Your task to perform on an android device: Open accessibility settings Image 0: 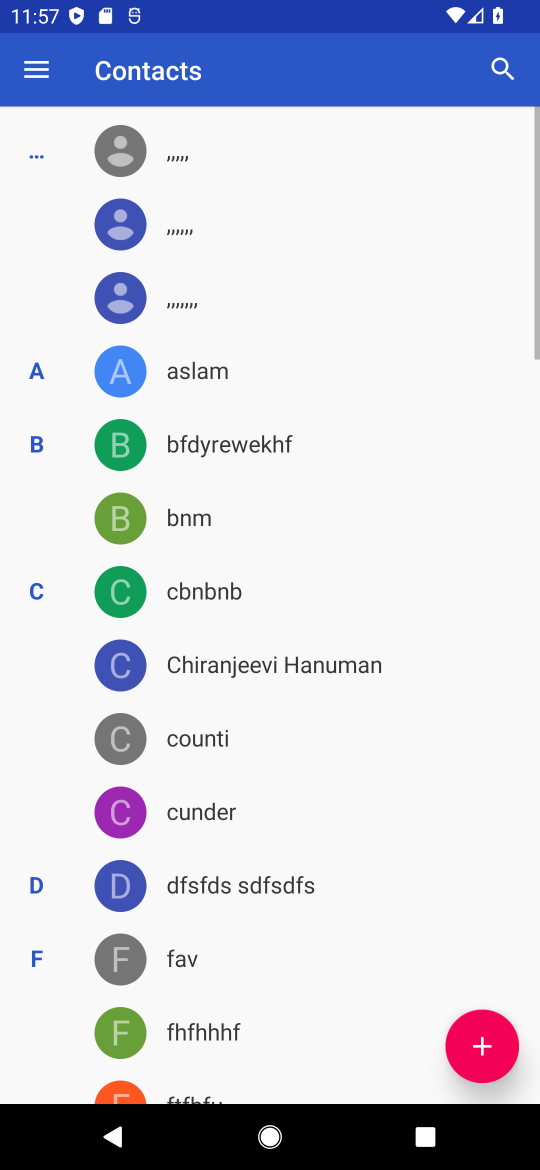
Step 0: press home button
Your task to perform on an android device: Open accessibility settings Image 1: 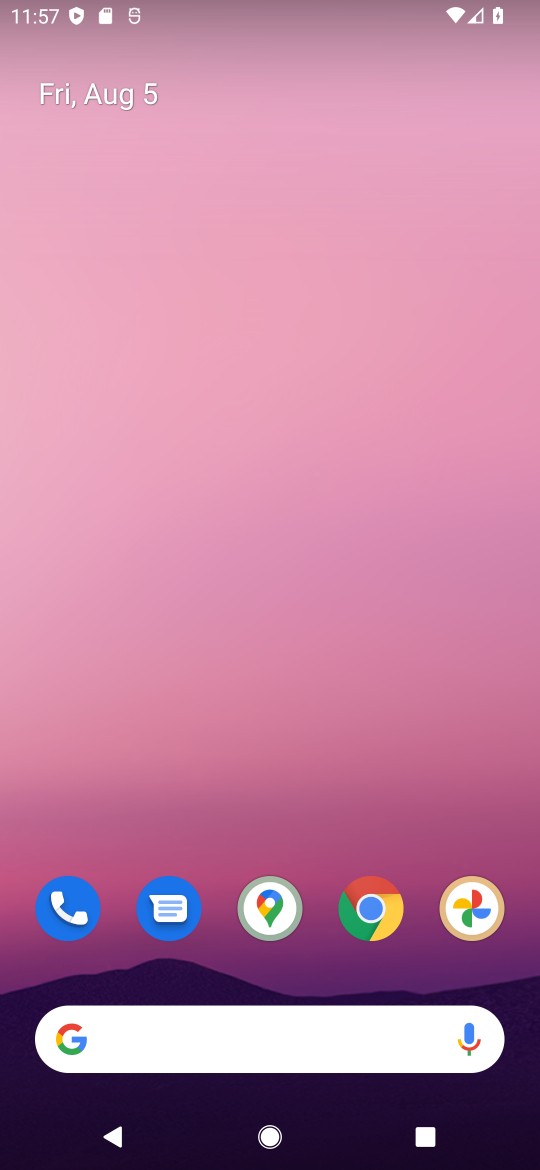
Step 1: drag from (427, 944) to (396, 279)
Your task to perform on an android device: Open accessibility settings Image 2: 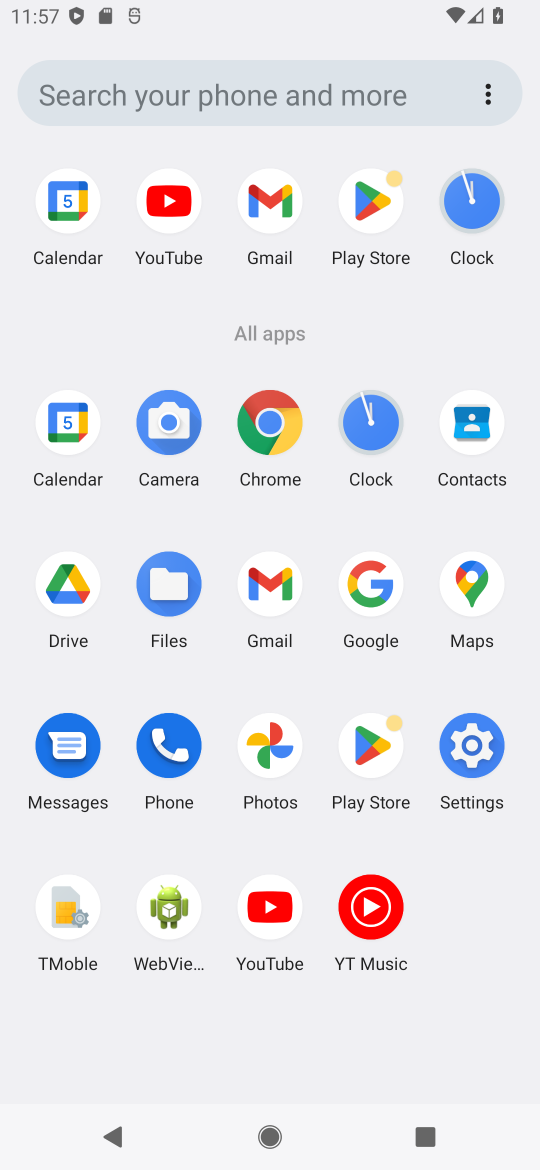
Step 2: click (477, 739)
Your task to perform on an android device: Open accessibility settings Image 3: 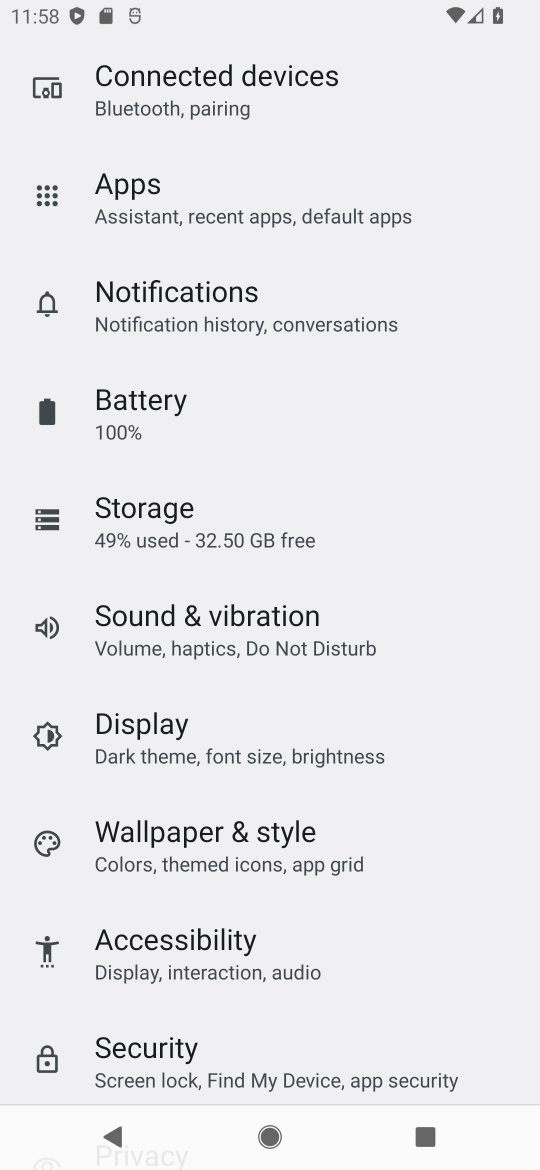
Step 3: drag from (345, 158) to (249, 833)
Your task to perform on an android device: Open accessibility settings Image 4: 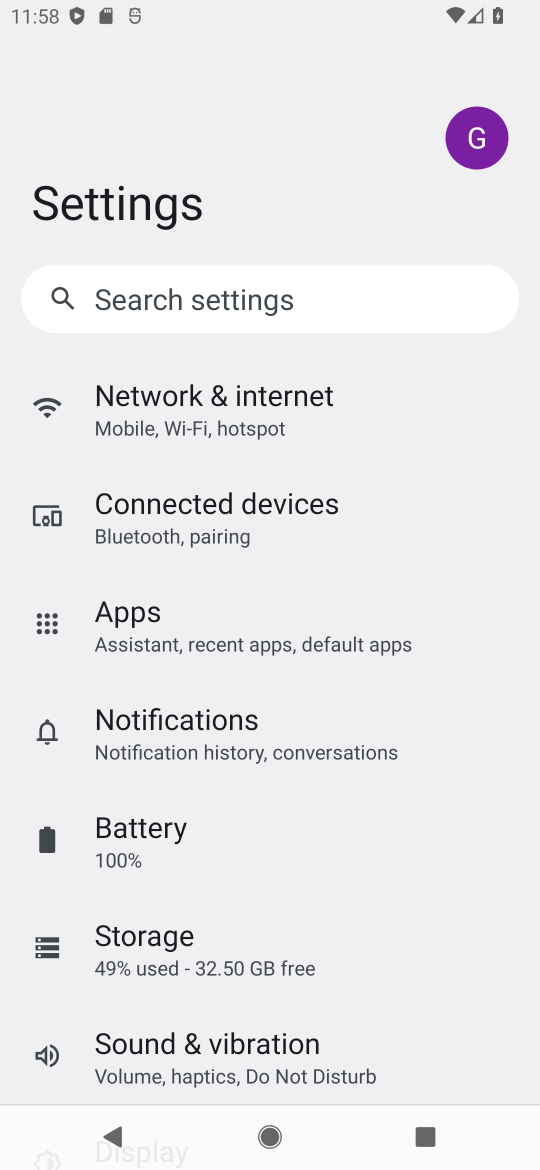
Step 4: drag from (303, 824) to (338, 136)
Your task to perform on an android device: Open accessibility settings Image 5: 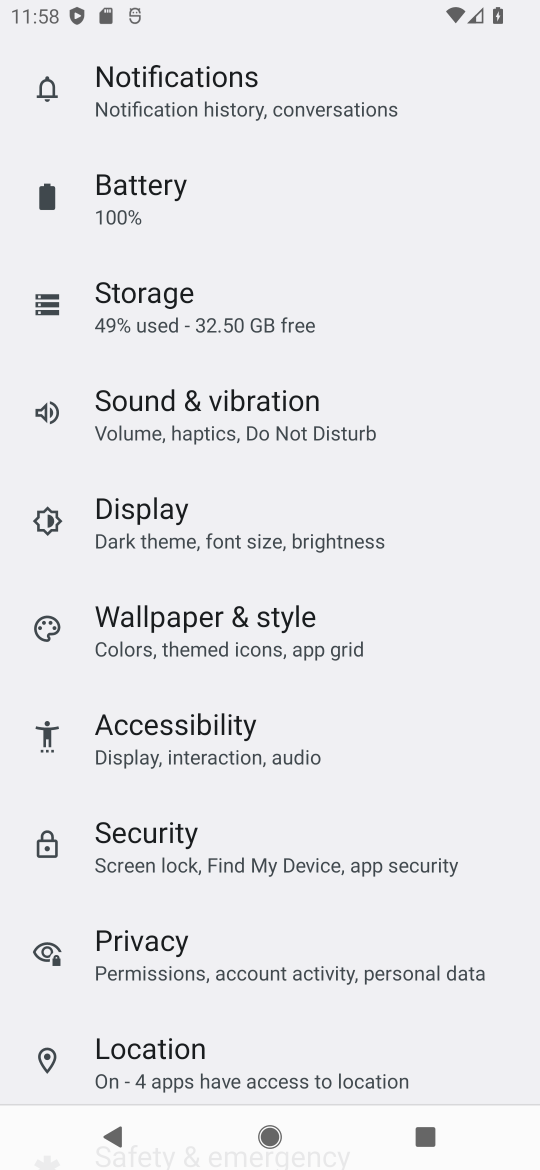
Step 5: drag from (318, 1033) to (325, 790)
Your task to perform on an android device: Open accessibility settings Image 6: 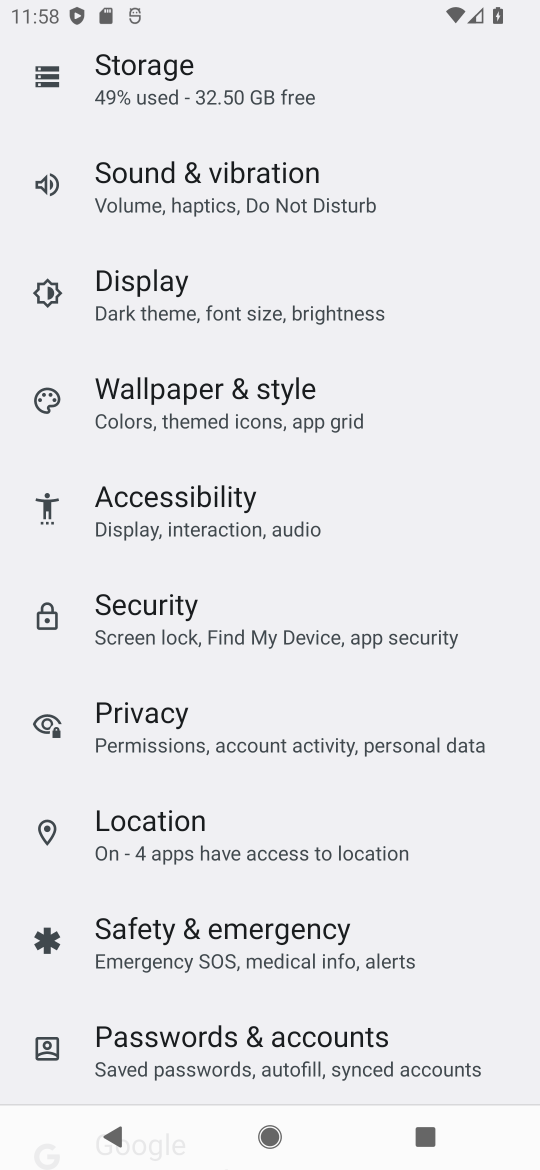
Step 6: click (175, 489)
Your task to perform on an android device: Open accessibility settings Image 7: 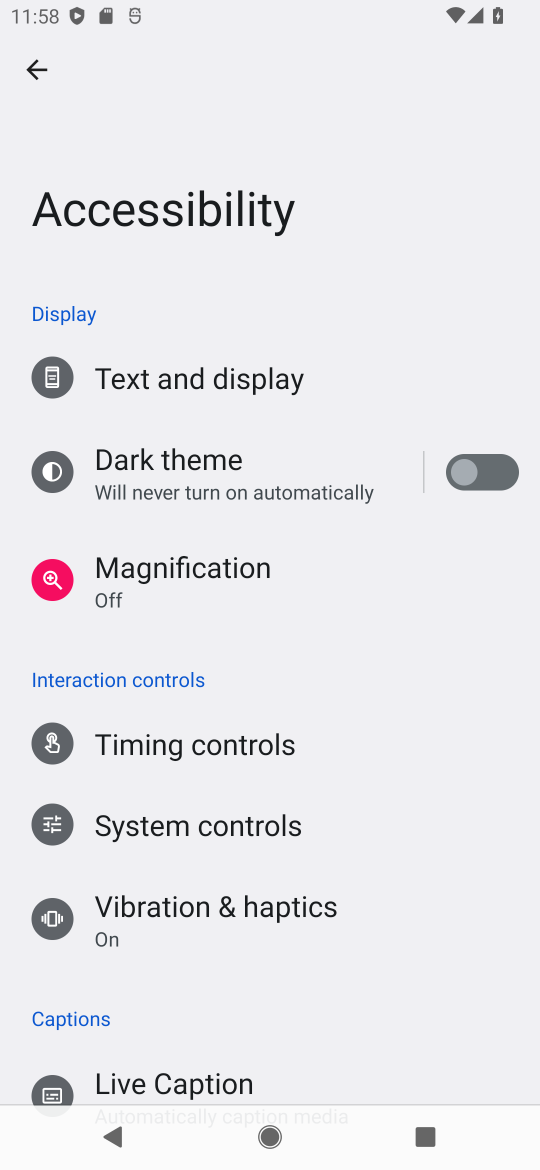
Step 7: task complete